Your task to perform on an android device: Check the news Image 0: 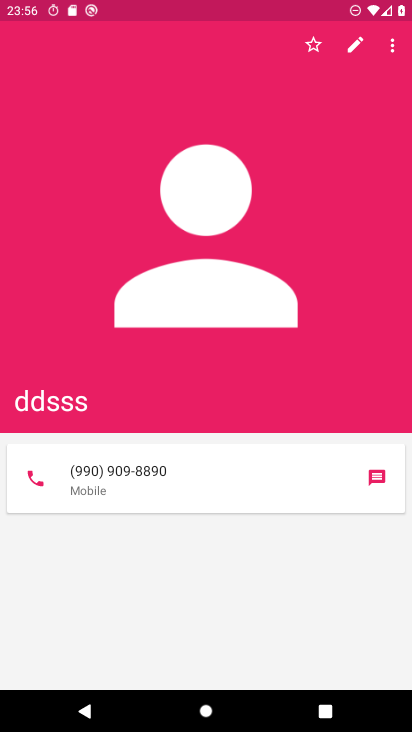
Step 0: press home button
Your task to perform on an android device: Check the news Image 1: 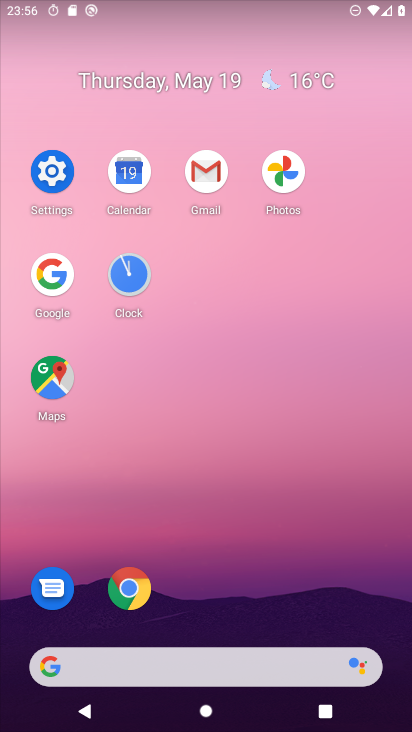
Step 1: click (57, 298)
Your task to perform on an android device: Check the news Image 2: 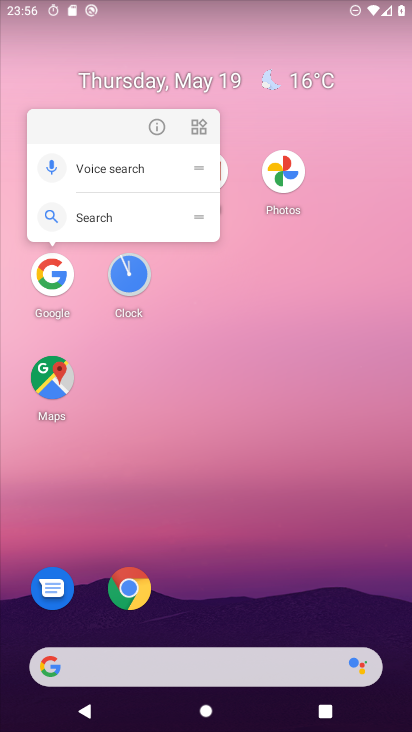
Step 2: click (72, 273)
Your task to perform on an android device: Check the news Image 3: 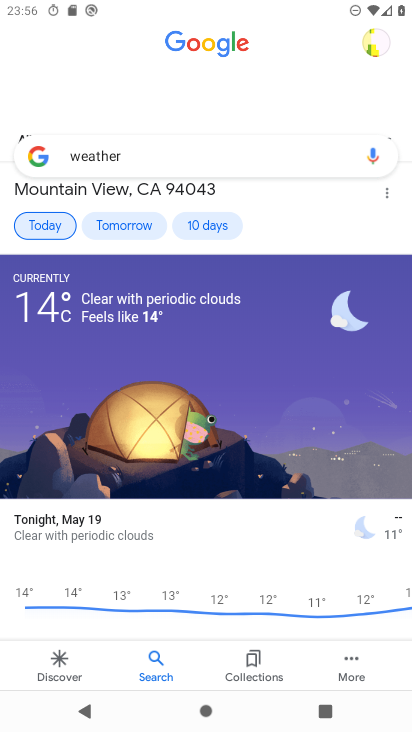
Step 3: click (252, 139)
Your task to perform on an android device: Check the news Image 4: 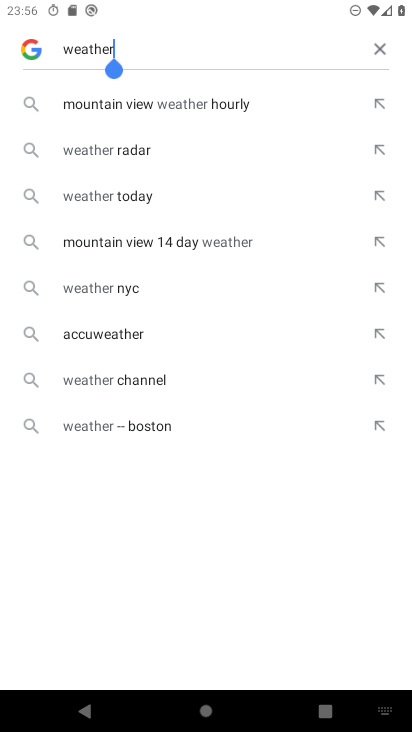
Step 4: click (381, 54)
Your task to perform on an android device: Check the news Image 5: 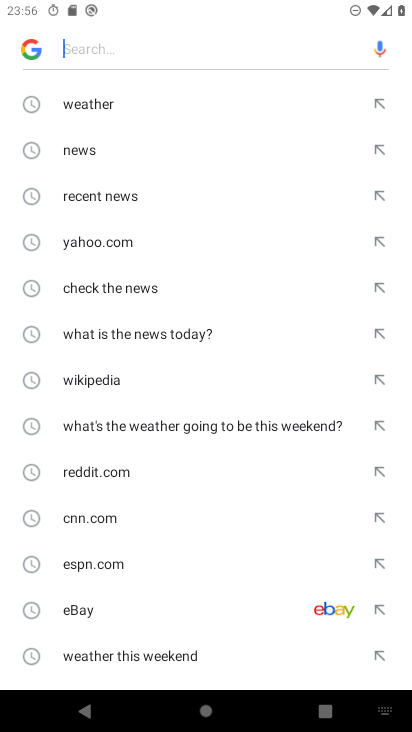
Step 5: click (118, 146)
Your task to perform on an android device: Check the news Image 6: 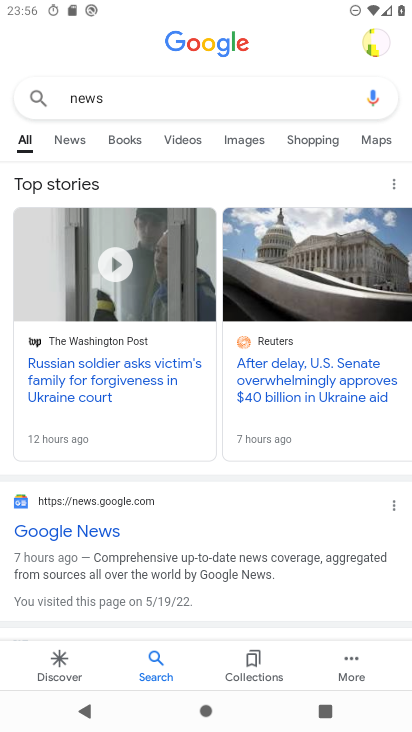
Step 6: task complete